Your task to perform on an android device: Open the calendar and show me this week's events Image 0: 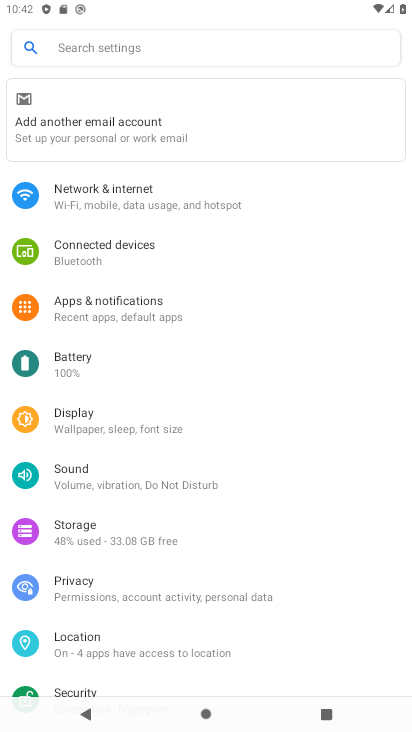
Step 0: drag from (323, 641) to (334, 337)
Your task to perform on an android device: Open the calendar and show me this week's events Image 1: 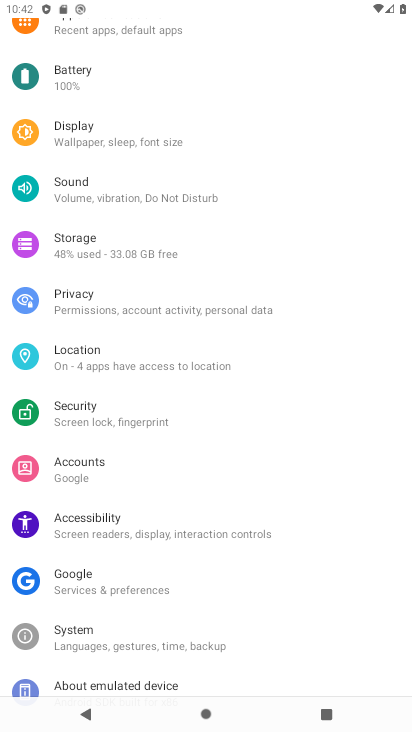
Step 1: press home button
Your task to perform on an android device: Open the calendar and show me this week's events Image 2: 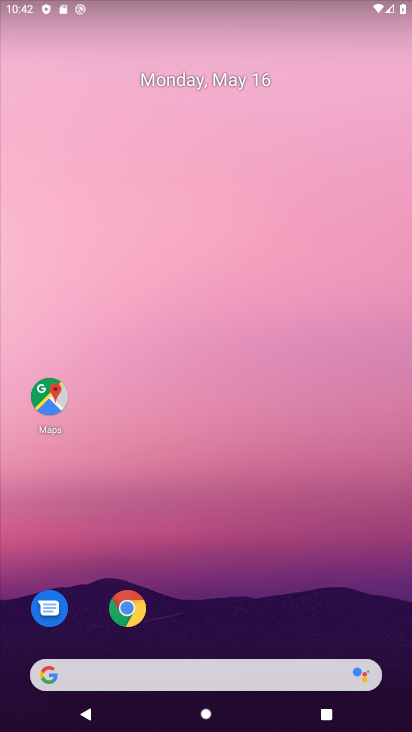
Step 2: drag from (382, 588) to (304, 129)
Your task to perform on an android device: Open the calendar and show me this week's events Image 3: 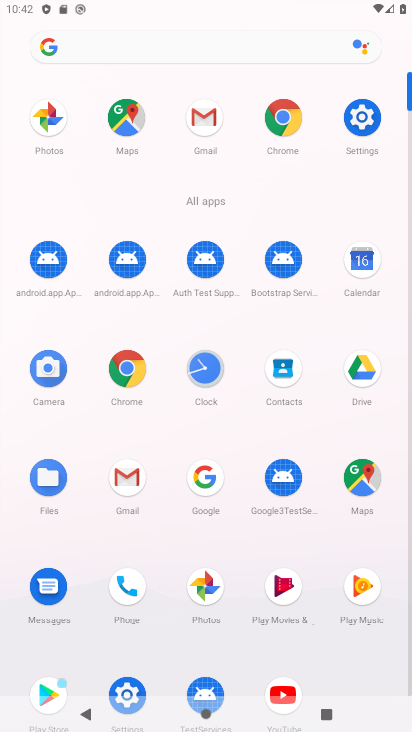
Step 3: click (368, 270)
Your task to perform on an android device: Open the calendar and show me this week's events Image 4: 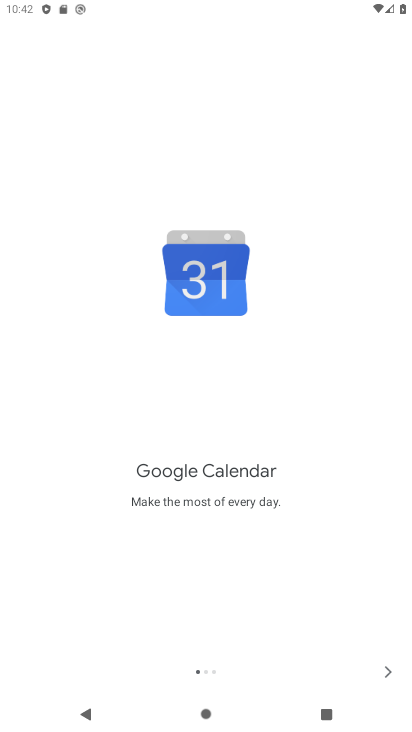
Step 4: click (389, 675)
Your task to perform on an android device: Open the calendar and show me this week's events Image 5: 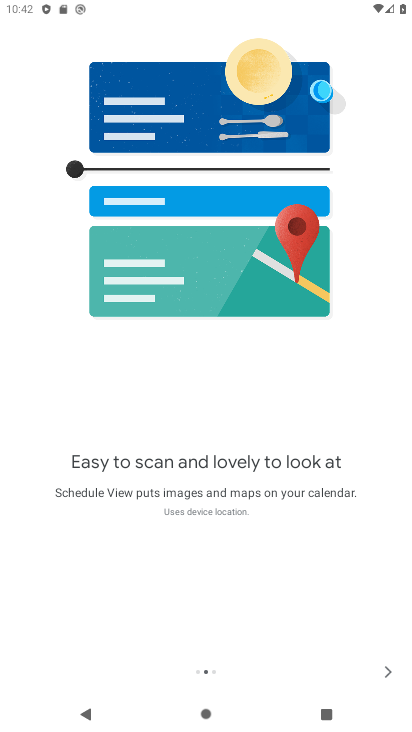
Step 5: click (386, 671)
Your task to perform on an android device: Open the calendar and show me this week's events Image 6: 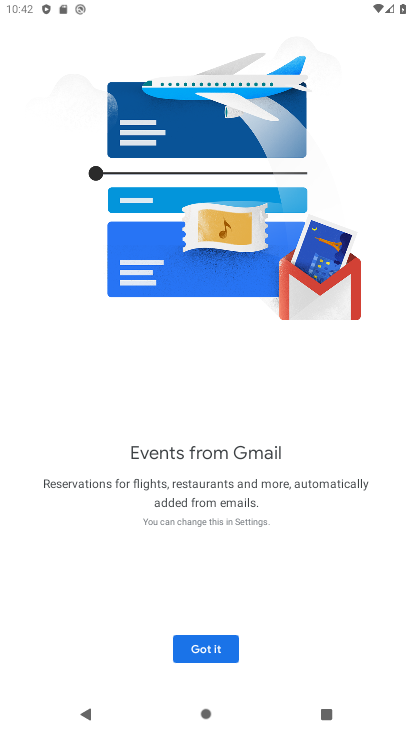
Step 6: click (209, 643)
Your task to perform on an android device: Open the calendar and show me this week's events Image 7: 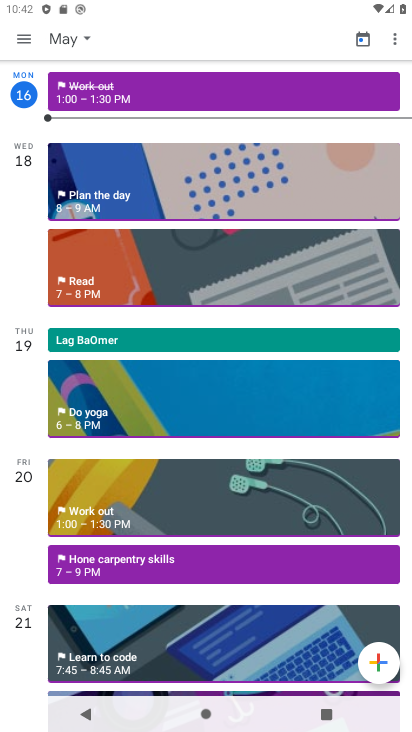
Step 7: click (26, 40)
Your task to perform on an android device: Open the calendar and show me this week's events Image 8: 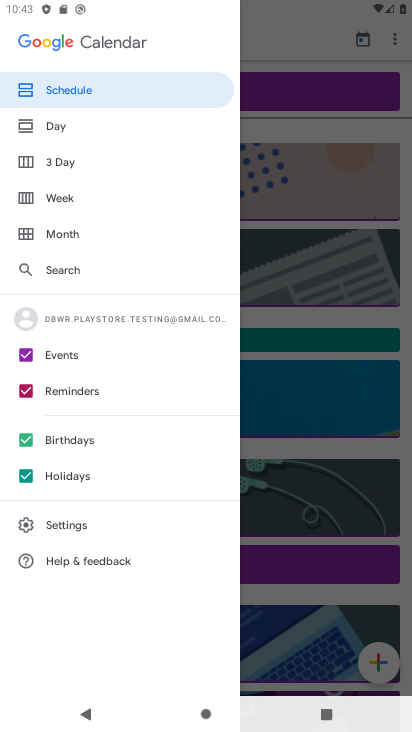
Step 8: click (308, 57)
Your task to perform on an android device: Open the calendar and show me this week's events Image 9: 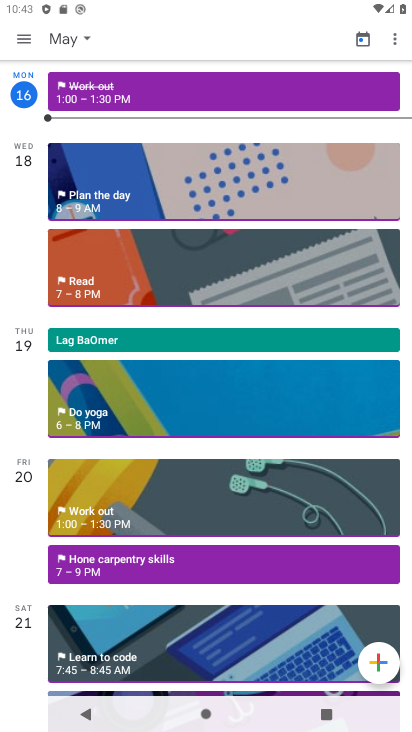
Step 9: click (63, 41)
Your task to perform on an android device: Open the calendar and show me this week's events Image 10: 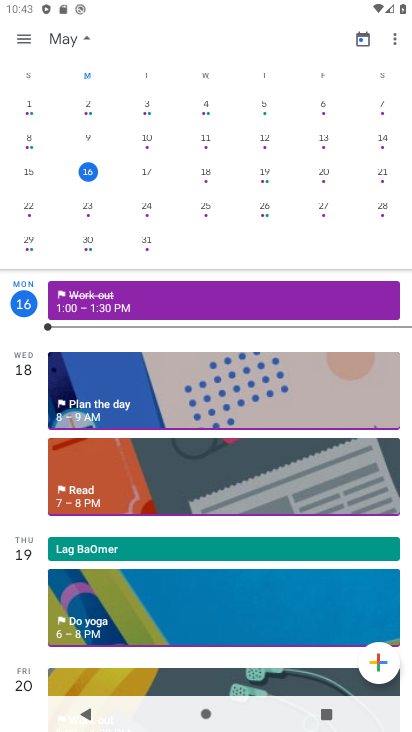
Step 10: task complete